Your task to perform on an android device: Turn off the flashlight Image 0: 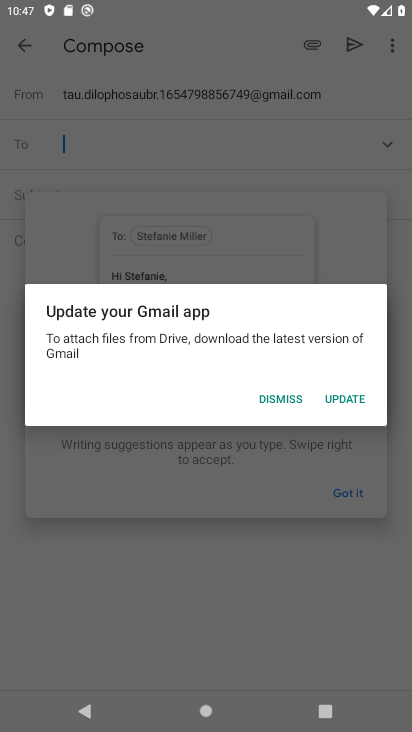
Step 0: press home button
Your task to perform on an android device: Turn off the flashlight Image 1: 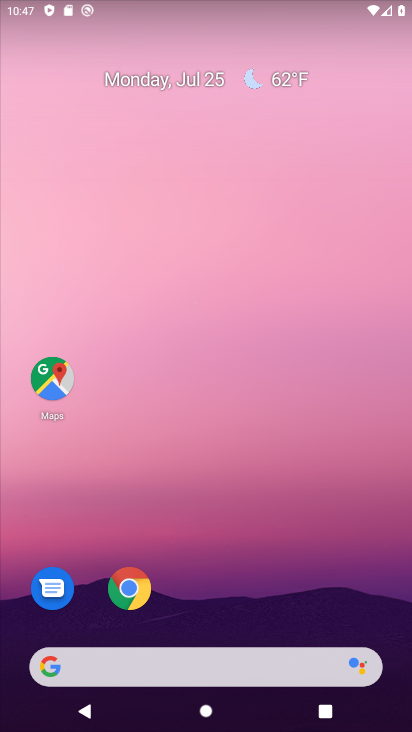
Step 1: drag from (0, 678) to (291, 32)
Your task to perform on an android device: Turn off the flashlight Image 2: 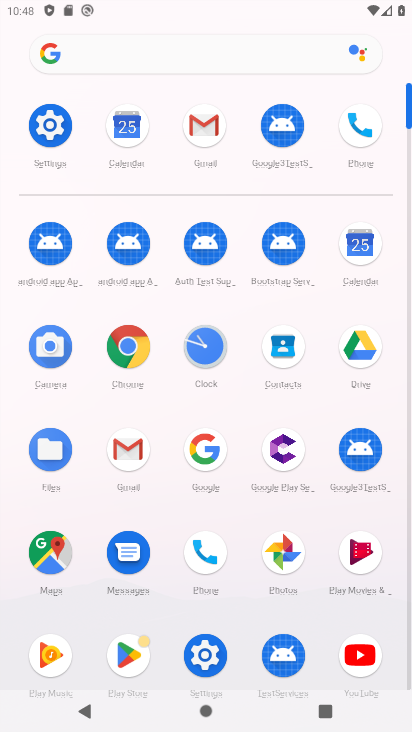
Step 2: click (212, 646)
Your task to perform on an android device: Turn off the flashlight Image 3: 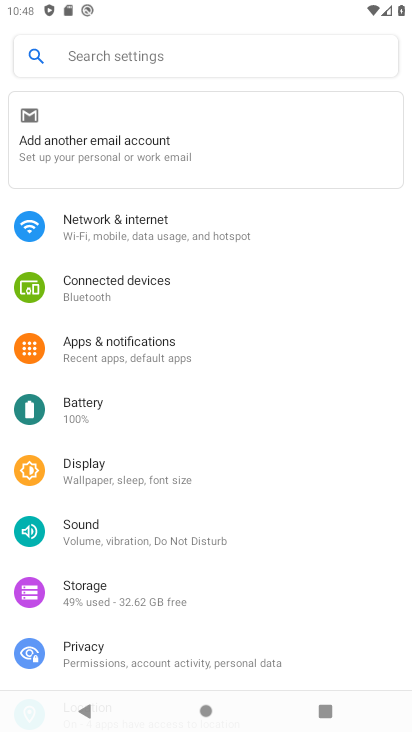
Step 3: task complete